Your task to perform on an android device: Open CNN.com Image 0: 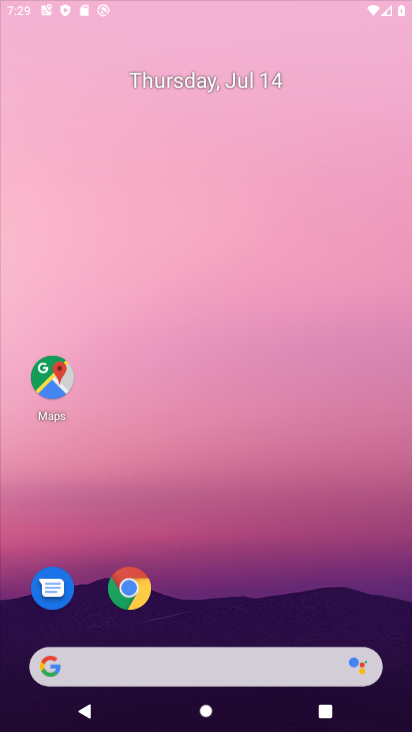
Step 0: click (253, 47)
Your task to perform on an android device: Open CNN.com Image 1: 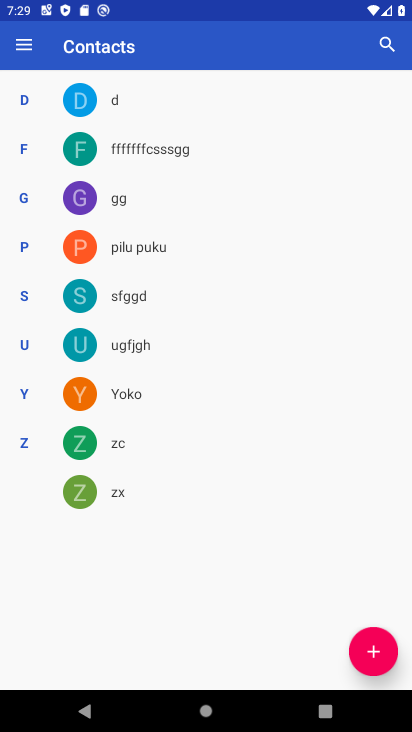
Step 1: drag from (322, 591) to (321, 255)
Your task to perform on an android device: Open CNN.com Image 2: 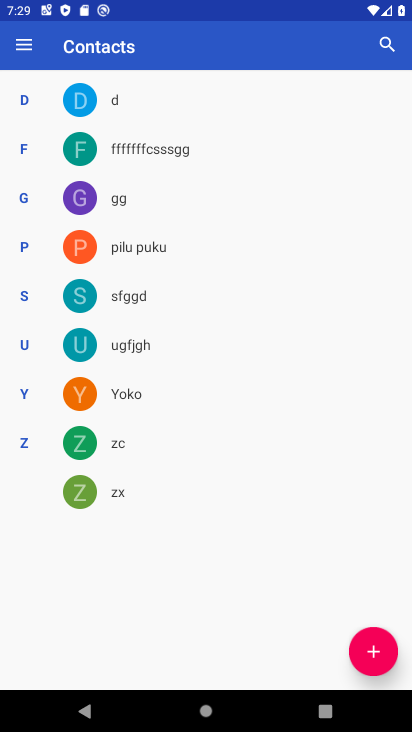
Step 2: press home button
Your task to perform on an android device: Open CNN.com Image 3: 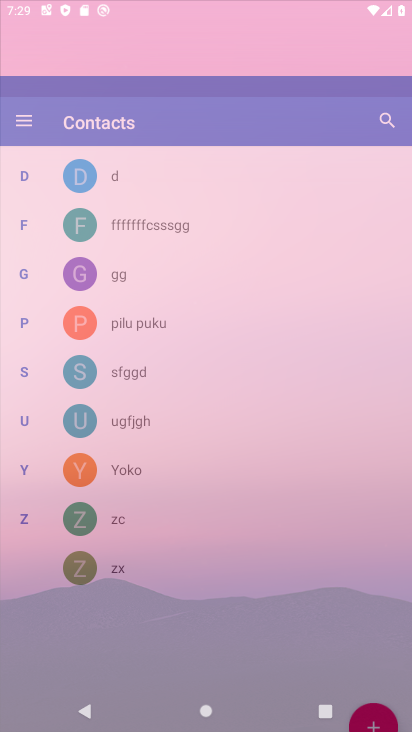
Step 3: drag from (351, 652) to (315, 48)
Your task to perform on an android device: Open CNN.com Image 4: 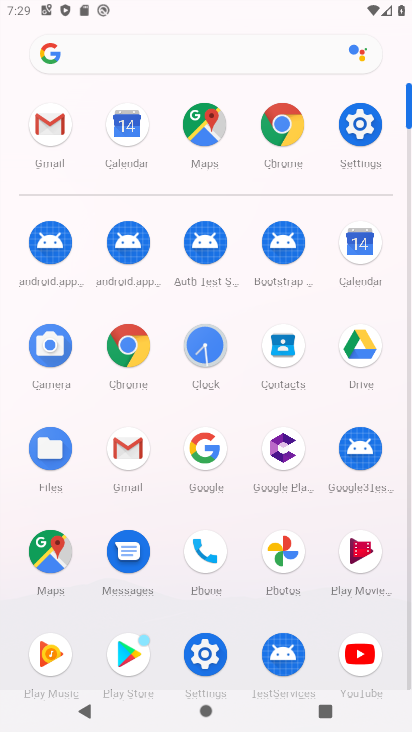
Step 4: click (225, 454)
Your task to perform on an android device: Open CNN.com Image 5: 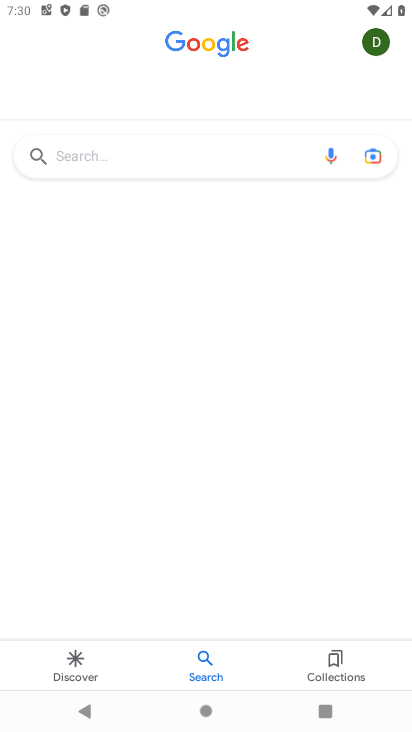
Step 5: click (156, 148)
Your task to perform on an android device: Open CNN.com Image 6: 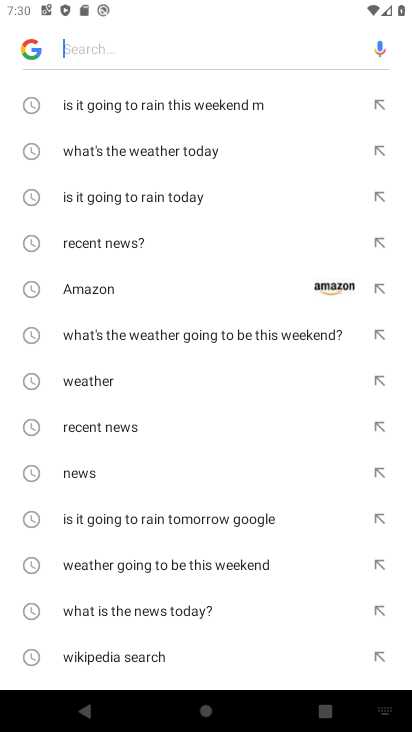
Step 6: type "CNN.com"
Your task to perform on an android device: Open CNN.com Image 7: 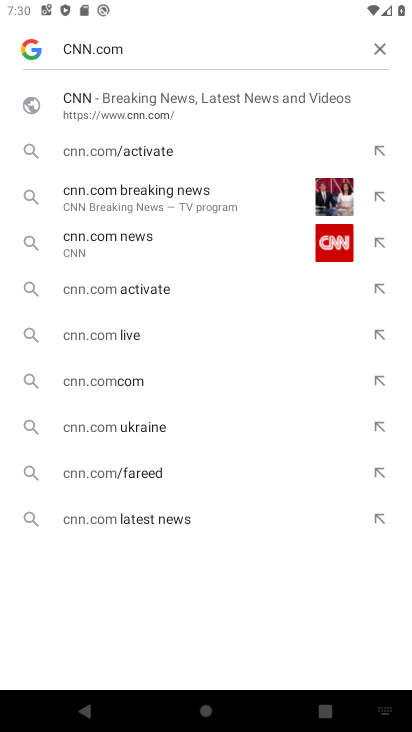
Step 7: click (113, 117)
Your task to perform on an android device: Open CNN.com Image 8: 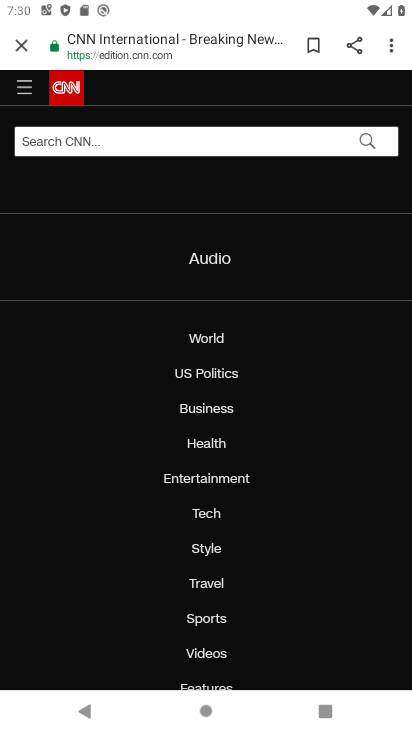
Step 8: task complete